Your task to perform on an android device: Open wifi settings Image 0: 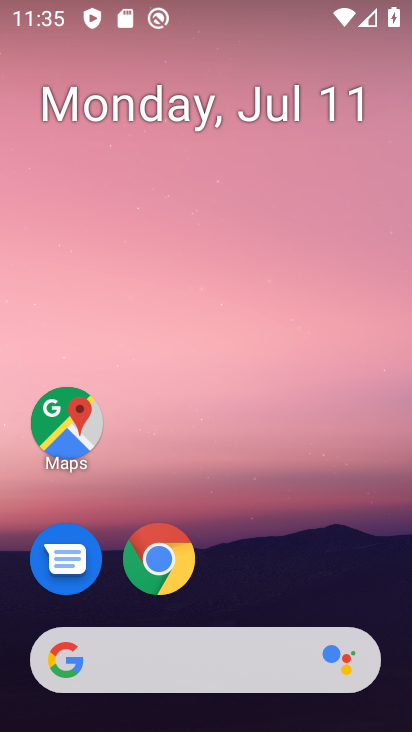
Step 0: drag from (206, 606) to (299, 177)
Your task to perform on an android device: Open wifi settings Image 1: 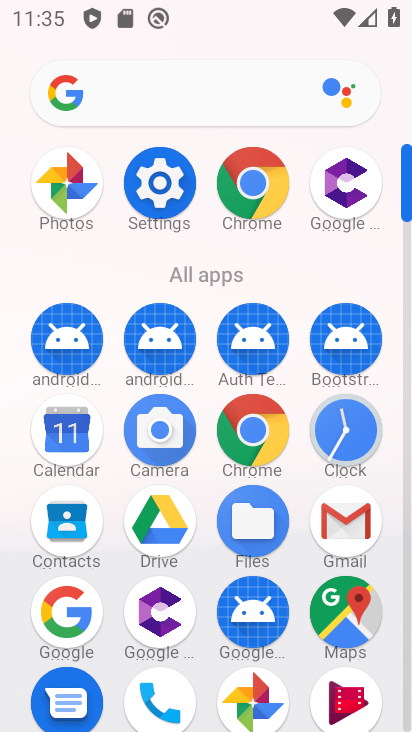
Step 1: click (132, 167)
Your task to perform on an android device: Open wifi settings Image 2: 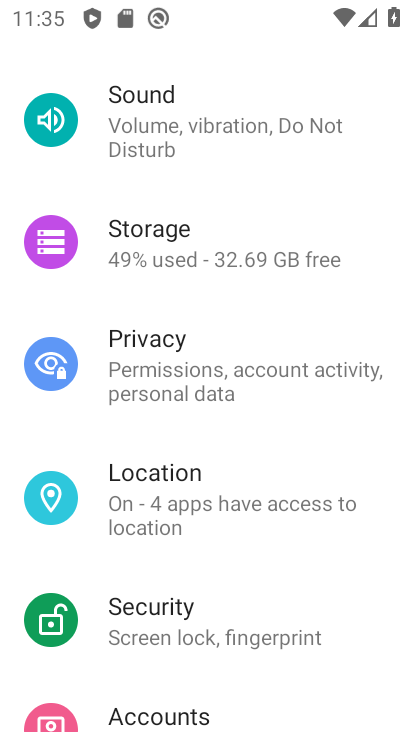
Step 2: drag from (166, 130) to (157, 555)
Your task to perform on an android device: Open wifi settings Image 3: 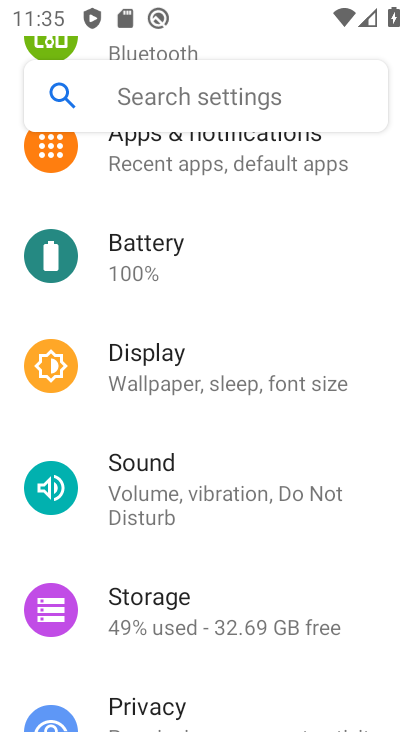
Step 3: drag from (194, 125) to (147, 543)
Your task to perform on an android device: Open wifi settings Image 4: 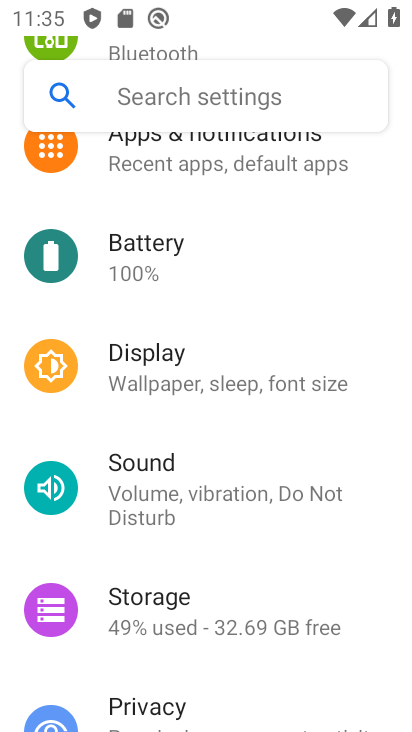
Step 4: drag from (163, 158) to (176, 526)
Your task to perform on an android device: Open wifi settings Image 5: 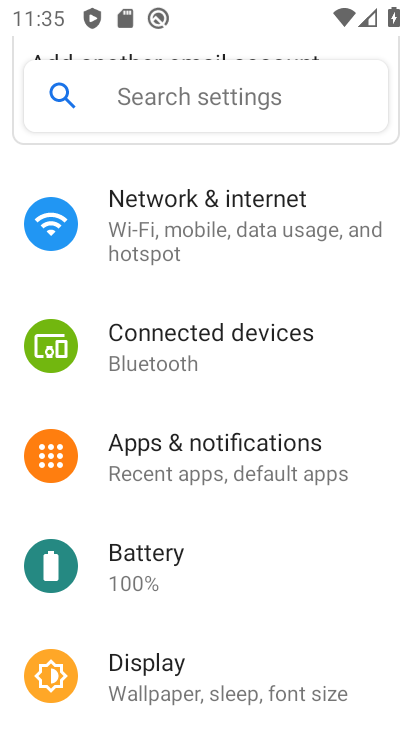
Step 5: click (184, 235)
Your task to perform on an android device: Open wifi settings Image 6: 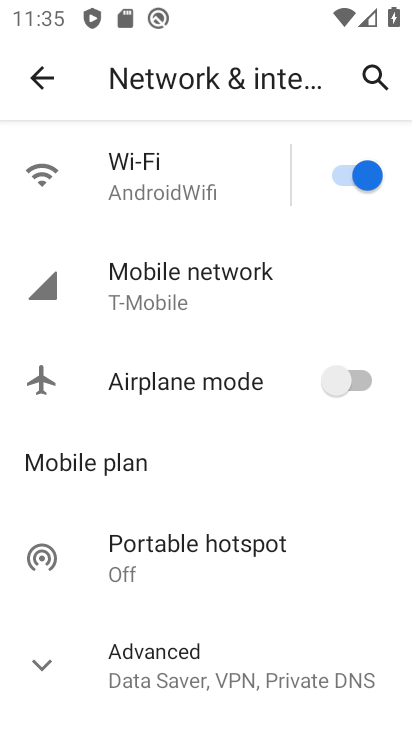
Step 6: click (179, 180)
Your task to perform on an android device: Open wifi settings Image 7: 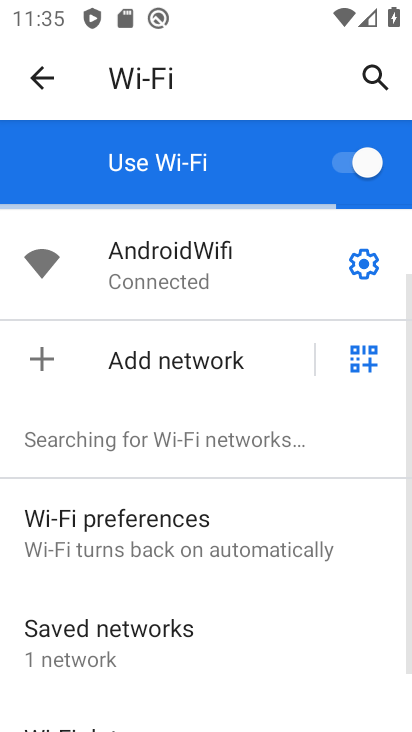
Step 7: click (362, 266)
Your task to perform on an android device: Open wifi settings Image 8: 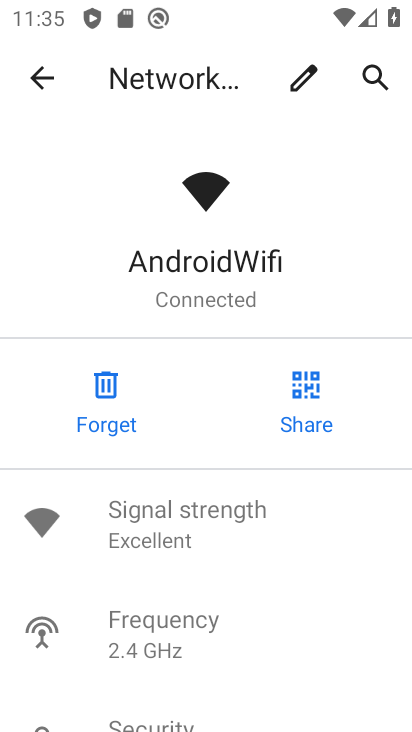
Step 8: task complete